Your task to perform on an android device: open wifi settings Image 0: 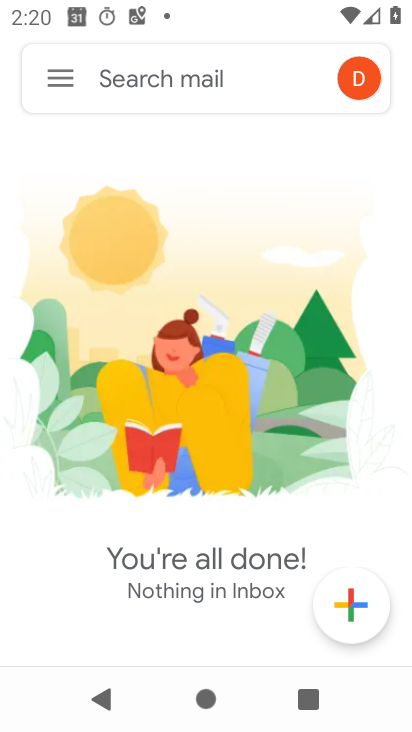
Step 0: press home button
Your task to perform on an android device: open wifi settings Image 1: 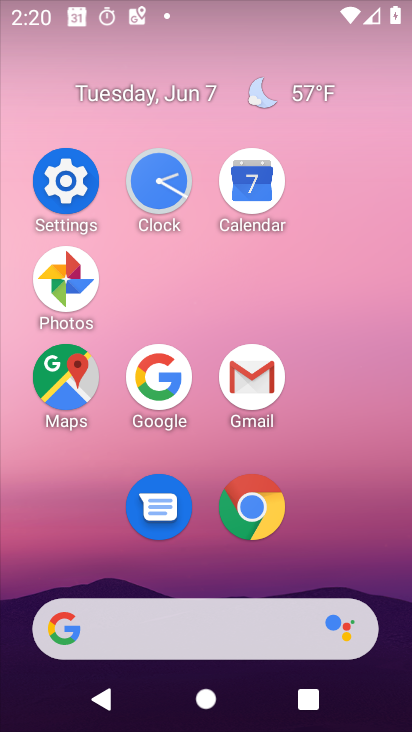
Step 1: click (89, 182)
Your task to perform on an android device: open wifi settings Image 2: 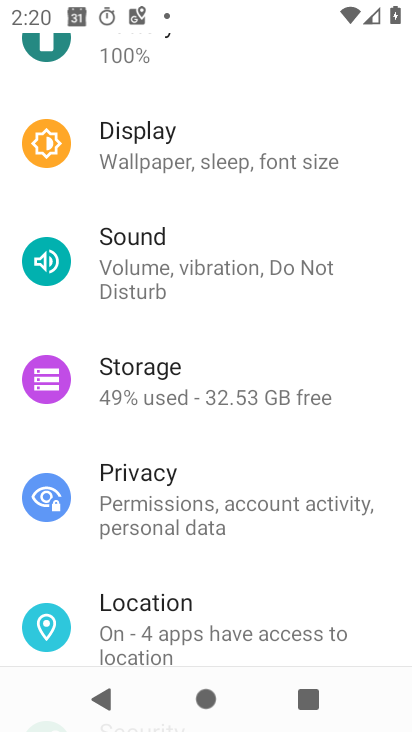
Step 2: drag from (334, 194) to (289, 533)
Your task to perform on an android device: open wifi settings Image 3: 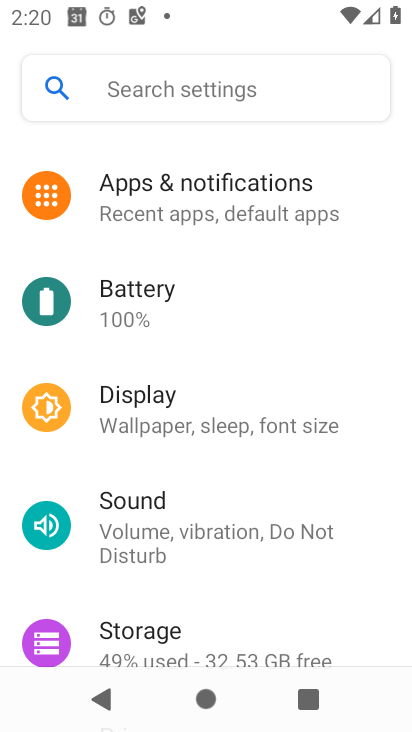
Step 3: drag from (345, 221) to (269, 531)
Your task to perform on an android device: open wifi settings Image 4: 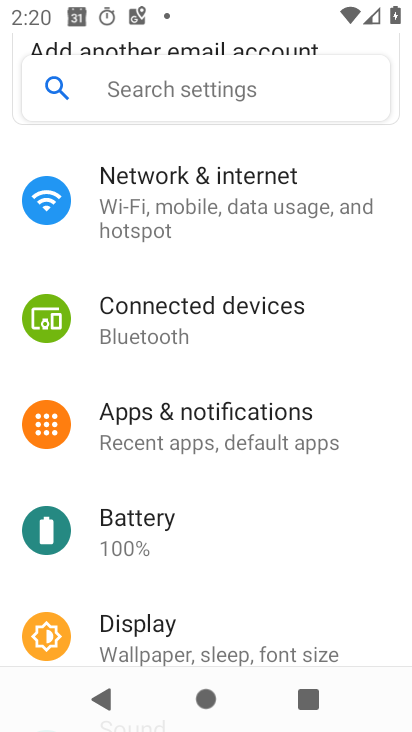
Step 4: click (285, 178)
Your task to perform on an android device: open wifi settings Image 5: 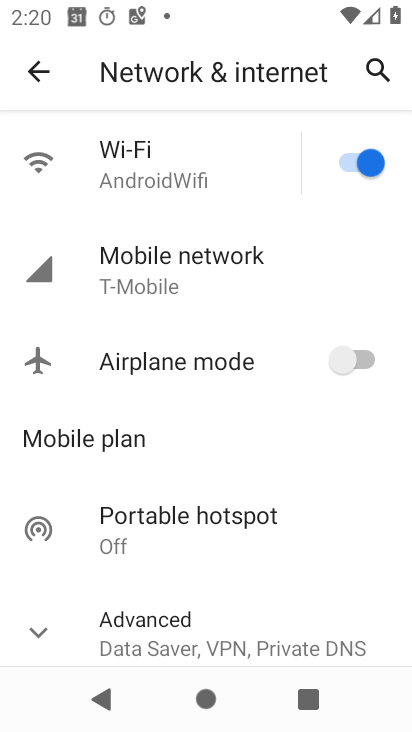
Step 5: click (213, 167)
Your task to perform on an android device: open wifi settings Image 6: 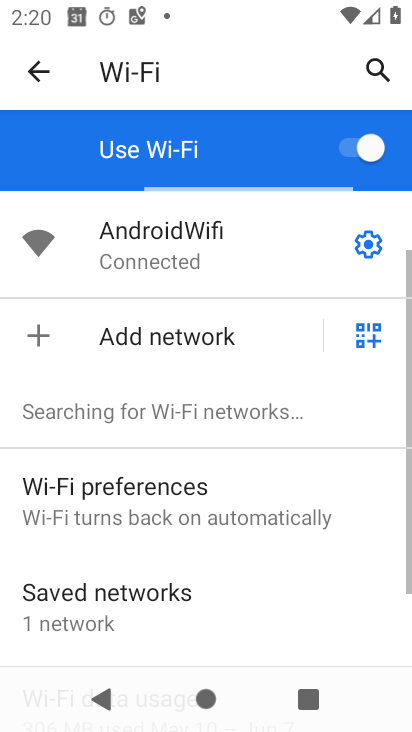
Step 6: click (374, 242)
Your task to perform on an android device: open wifi settings Image 7: 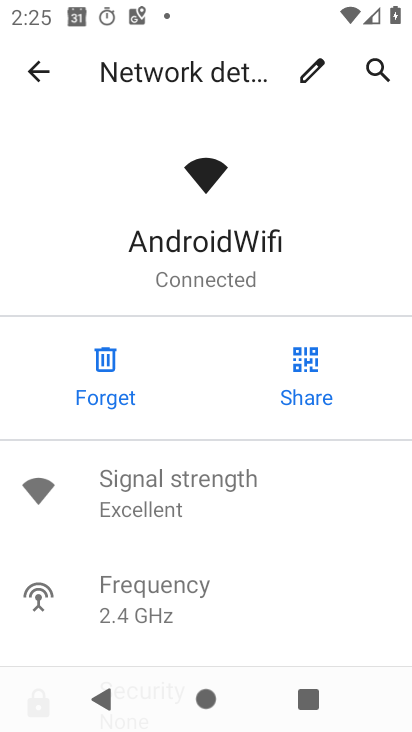
Step 7: task complete